Your task to perform on an android device: Open the web browser Image 0: 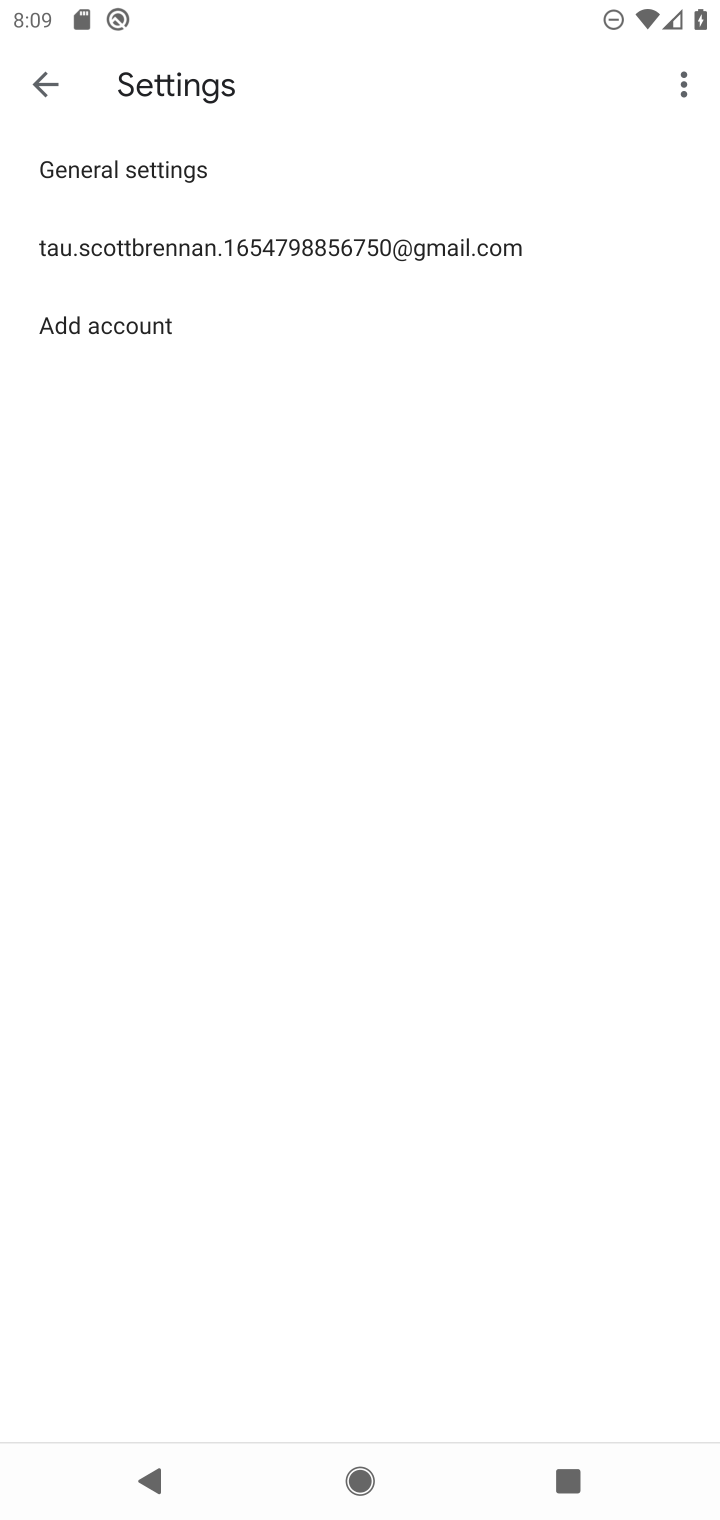
Step 0: press home button
Your task to perform on an android device: Open the web browser Image 1: 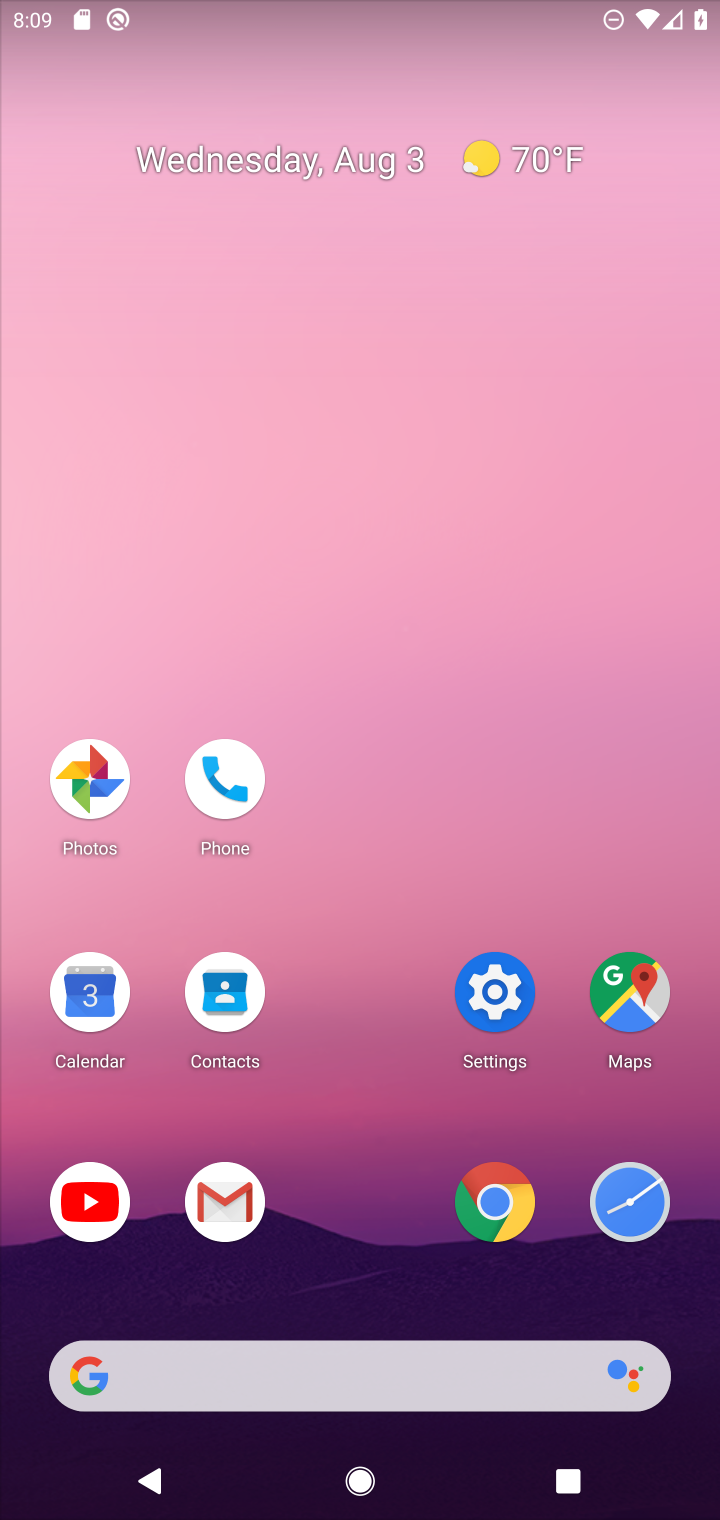
Step 1: click (493, 1206)
Your task to perform on an android device: Open the web browser Image 2: 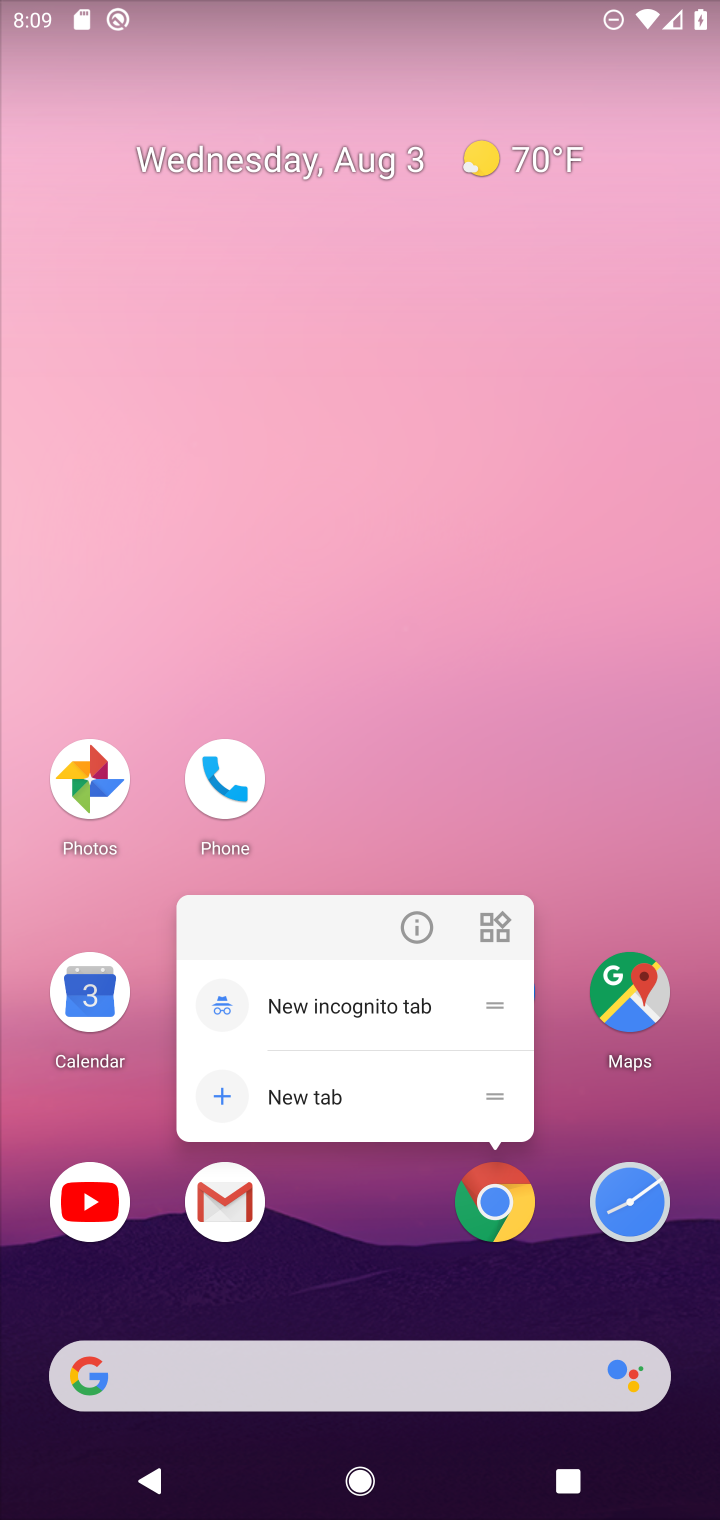
Step 2: click (493, 1206)
Your task to perform on an android device: Open the web browser Image 3: 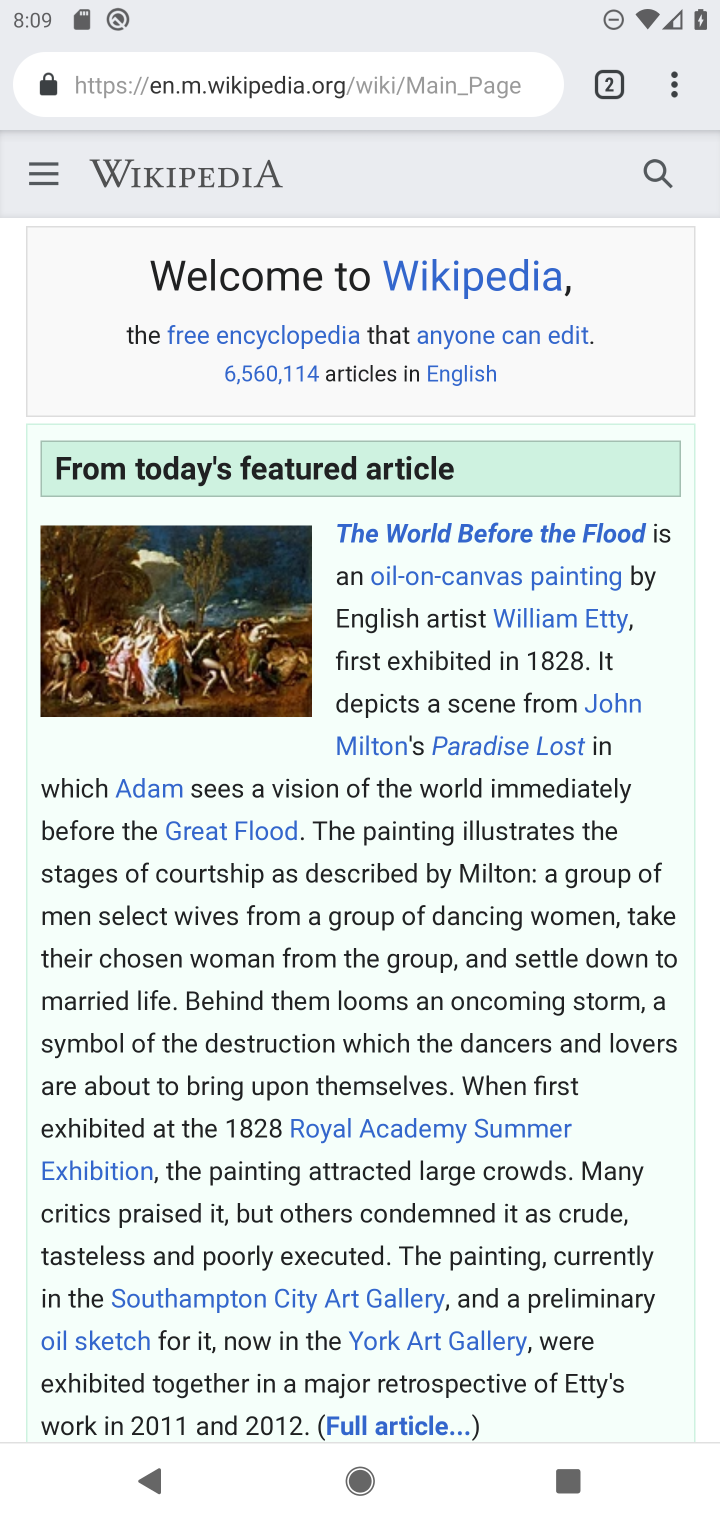
Step 3: task complete